Your task to perform on an android device: Show me productivity apps on the Play Store Image 0: 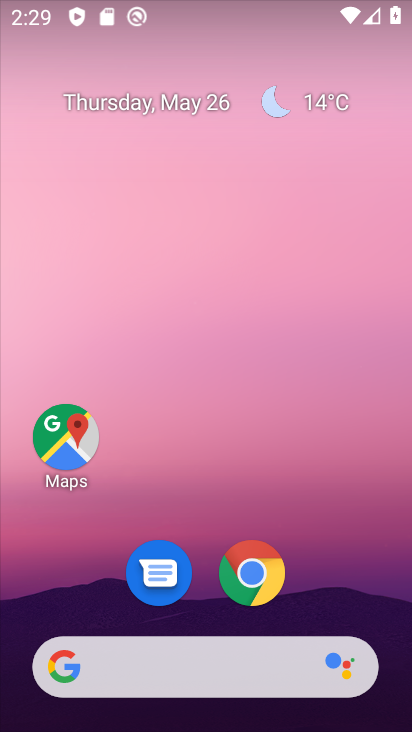
Step 0: drag from (350, 594) to (230, 0)
Your task to perform on an android device: Show me productivity apps on the Play Store Image 1: 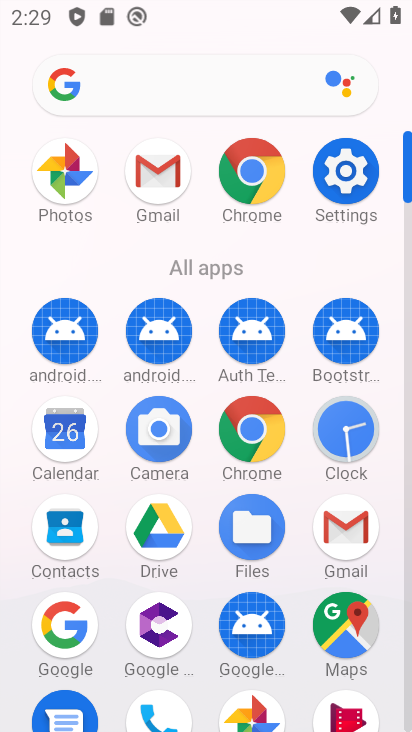
Step 1: drag from (203, 597) to (206, 179)
Your task to perform on an android device: Show me productivity apps on the Play Store Image 2: 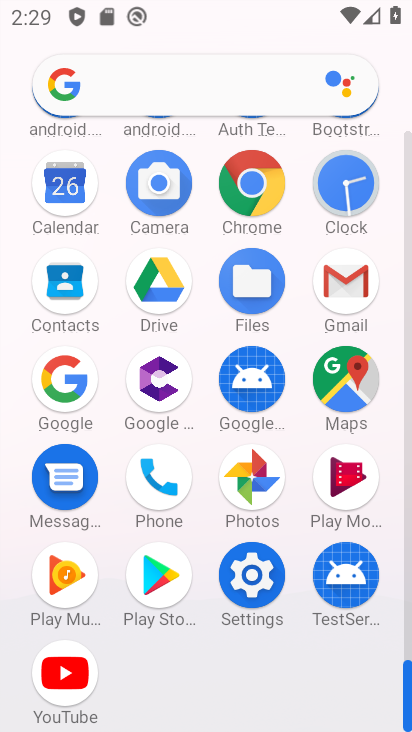
Step 2: click (152, 573)
Your task to perform on an android device: Show me productivity apps on the Play Store Image 3: 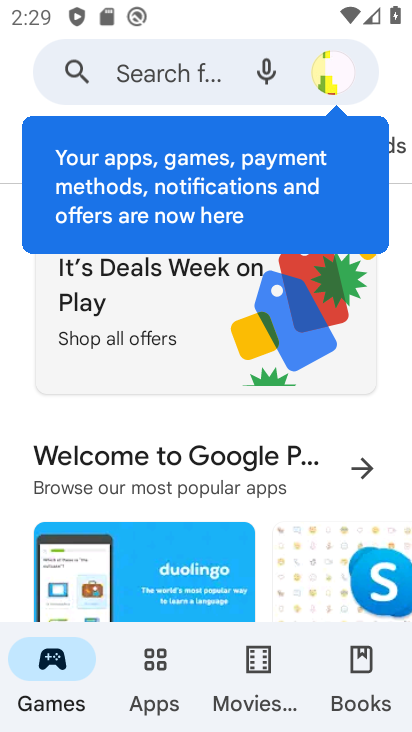
Step 3: click (17, 142)
Your task to perform on an android device: Show me productivity apps on the Play Store Image 4: 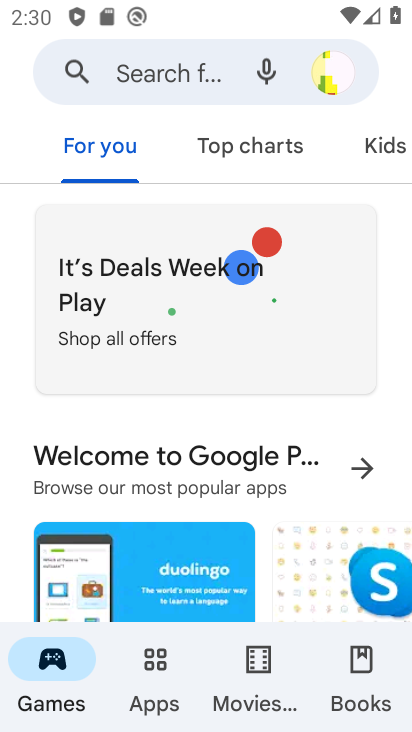
Step 4: drag from (330, 157) to (85, 149)
Your task to perform on an android device: Show me productivity apps on the Play Store Image 5: 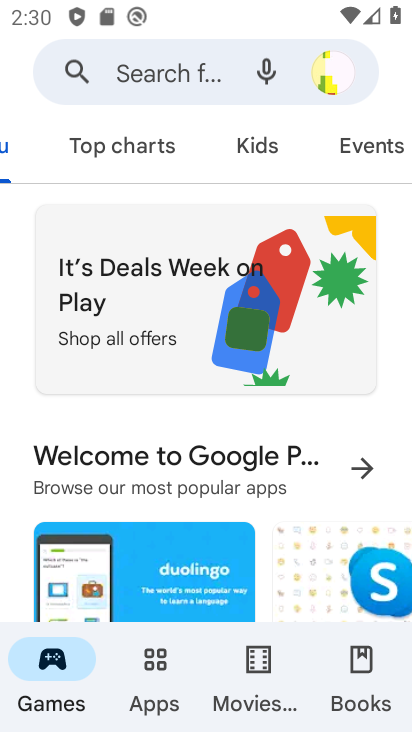
Step 5: drag from (332, 153) to (24, 157)
Your task to perform on an android device: Show me productivity apps on the Play Store Image 6: 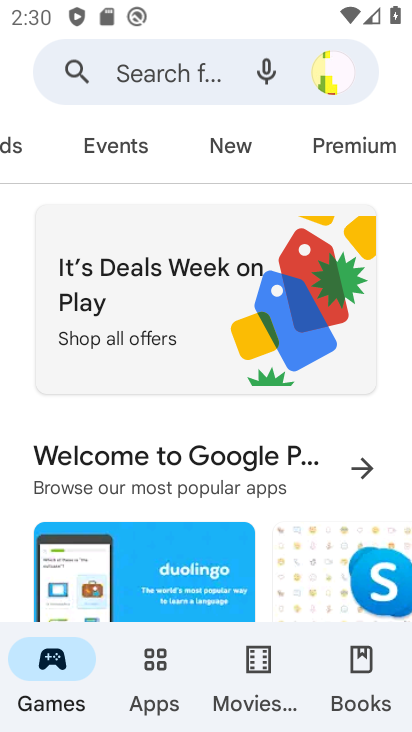
Step 6: drag from (217, 139) to (11, 145)
Your task to perform on an android device: Show me productivity apps on the Play Store Image 7: 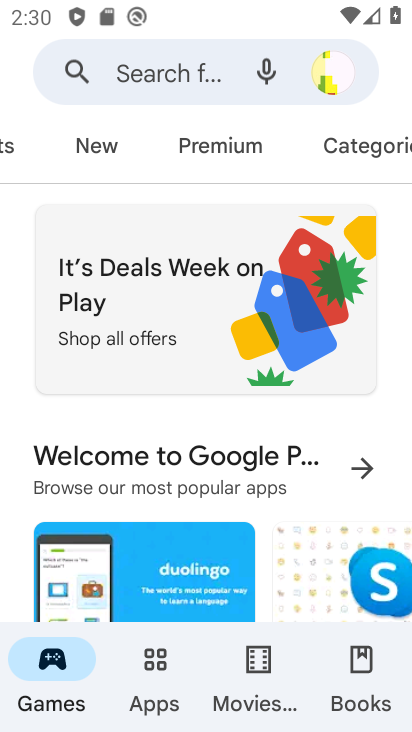
Step 7: drag from (344, 149) to (84, 147)
Your task to perform on an android device: Show me productivity apps on the Play Store Image 8: 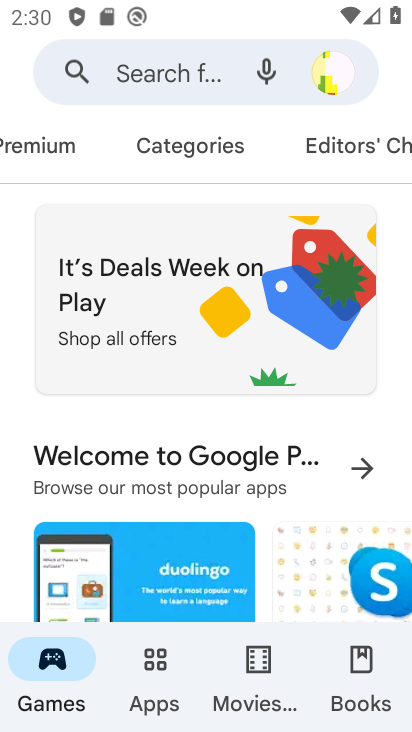
Step 8: click (149, 668)
Your task to perform on an android device: Show me productivity apps on the Play Store Image 9: 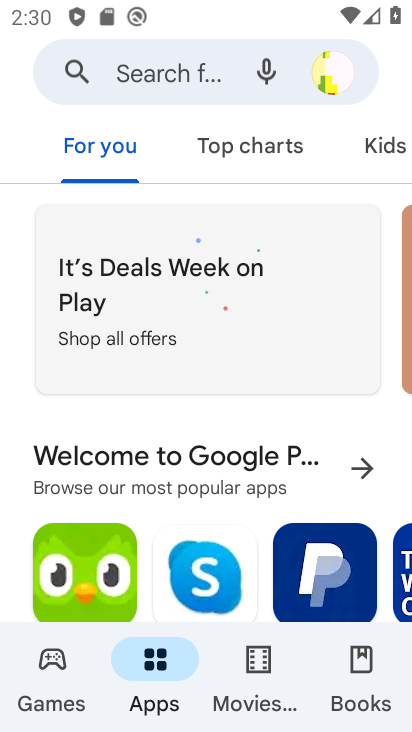
Step 9: drag from (317, 139) to (19, 150)
Your task to perform on an android device: Show me productivity apps on the Play Store Image 10: 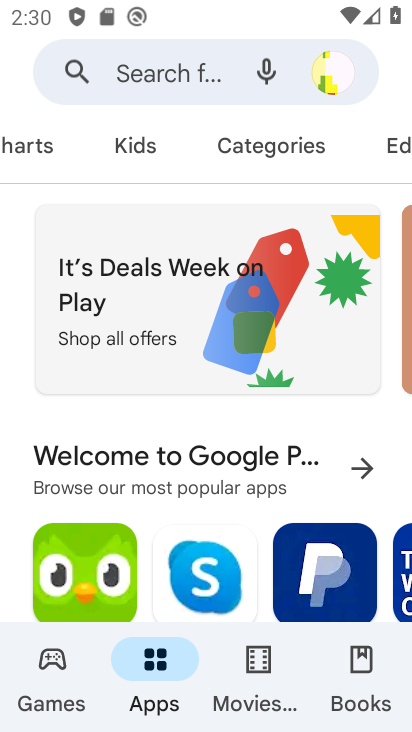
Step 10: click (255, 151)
Your task to perform on an android device: Show me productivity apps on the Play Store Image 11: 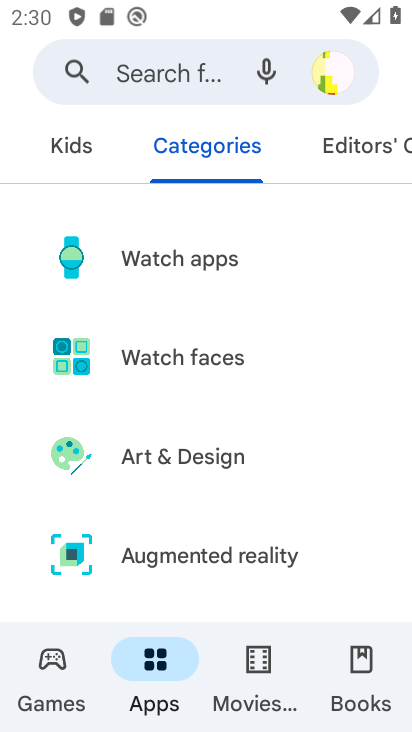
Step 11: drag from (246, 533) to (256, 197)
Your task to perform on an android device: Show me productivity apps on the Play Store Image 12: 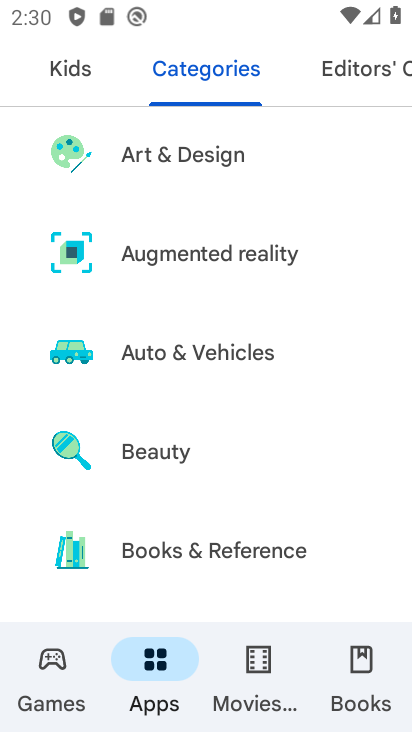
Step 12: drag from (273, 551) to (287, 193)
Your task to perform on an android device: Show me productivity apps on the Play Store Image 13: 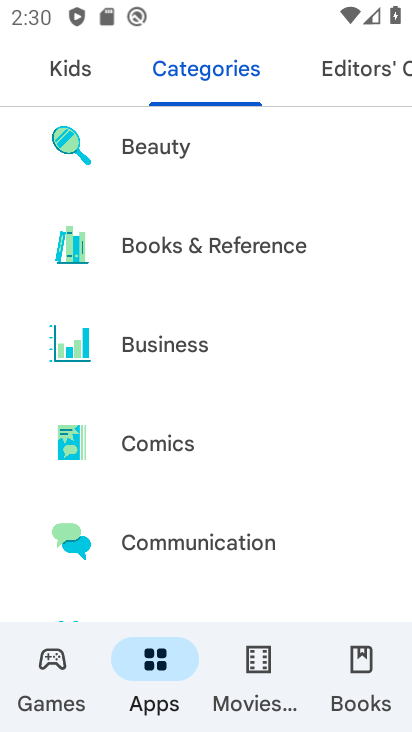
Step 13: drag from (259, 488) to (253, 180)
Your task to perform on an android device: Show me productivity apps on the Play Store Image 14: 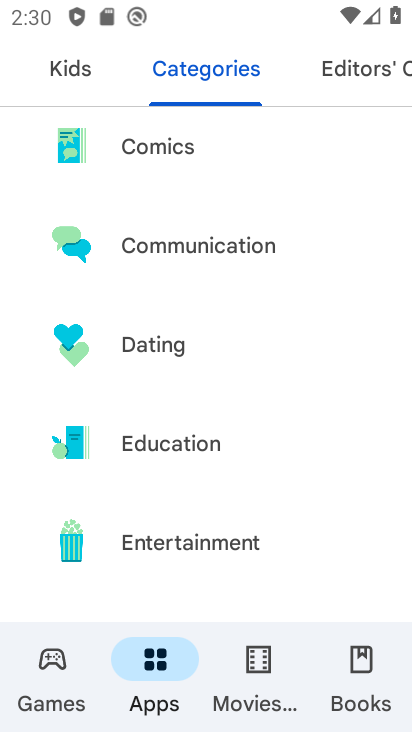
Step 14: drag from (253, 494) to (250, 147)
Your task to perform on an android device: Show me productivity apps on the Play Store Image 15: 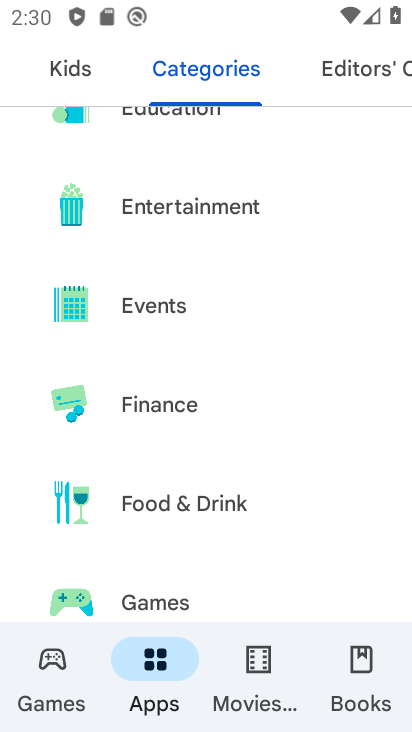
Step 15: drag from (264, 549) to (265, 181)
Your task to perform on an android device: Show me productivity apps on the Play Store Image 16: 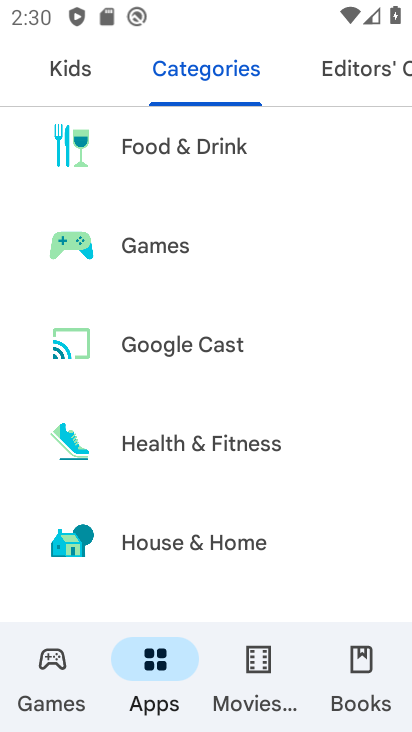
Step 16: drag from (236, 535) to (247, 203)
Your task to perform on an android device: Show me productivity apps on the Play Store Image 17: 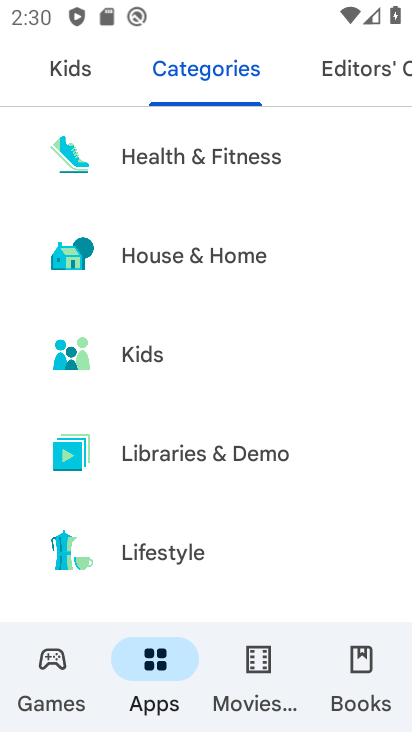
Step 17: drag from (202, 544) to (214, 190)
Your task to perform on an android device: Show me productivity apps on the Play Store Image 18: 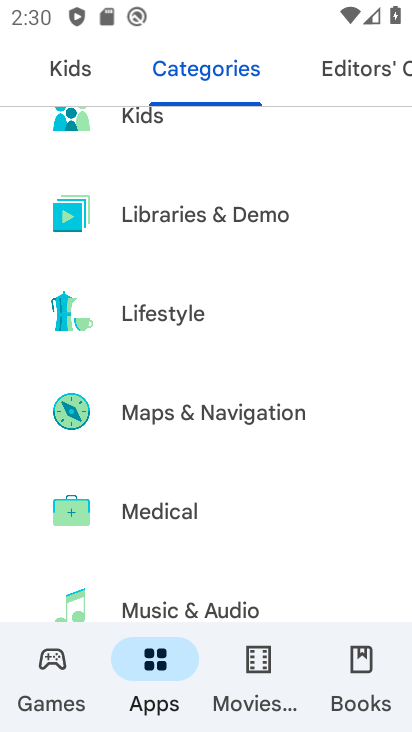
Step 18: drag from (223, 541) to (223, 184)
Your task to perform on an android device: Show me productivity apps on the Play Store Image 19: 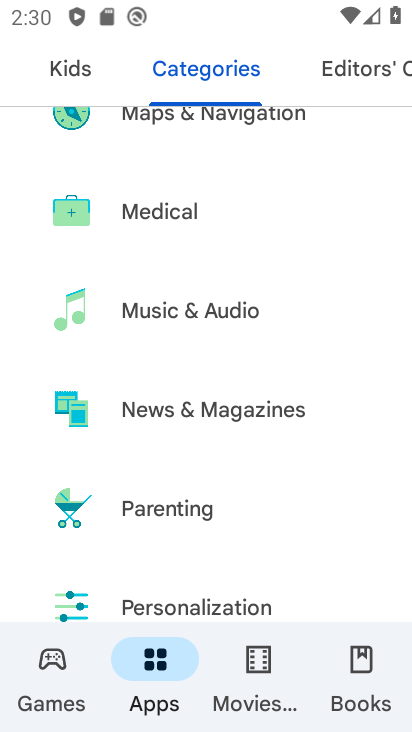
Step 19: drag from (202, 547) to (208, 184)
Your task to perform on an android device: Show me productivity apps on the Play Store Image 20: 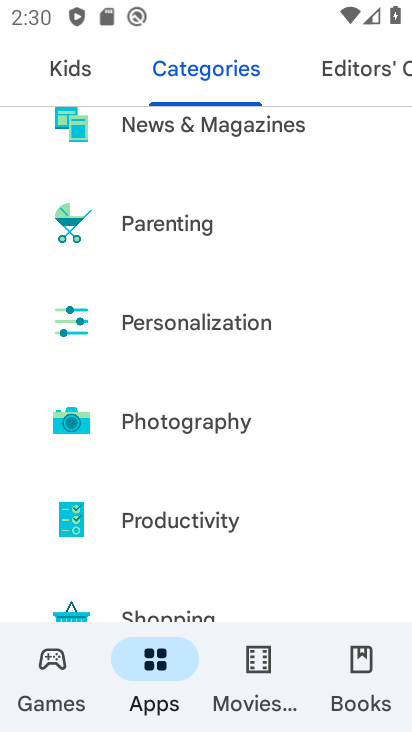
Step 20: click (189, 524)
Your task to perform on an android device: Show me productivity apps on the Play Store Image 21: 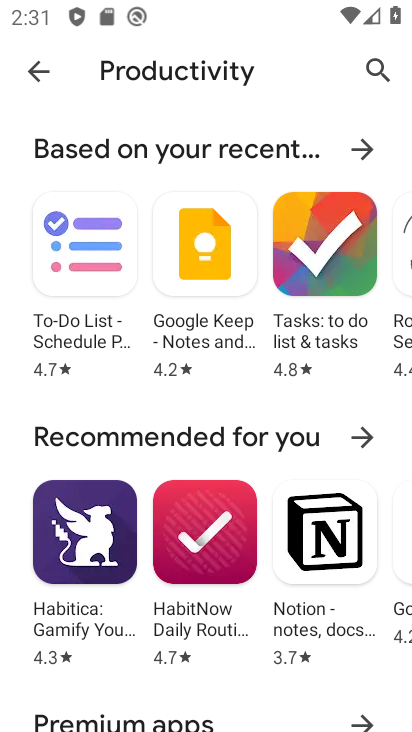
Step 21: task complete